Your task to perform on an android device: toggle pop-ups in chrome Image 0: 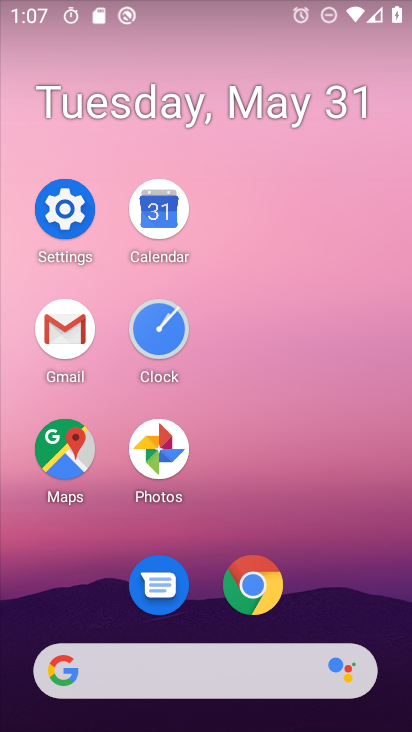
Step 0: click (271, 601)
Your task to perform on an android device: toggle pop-ups in chrome Image 1: 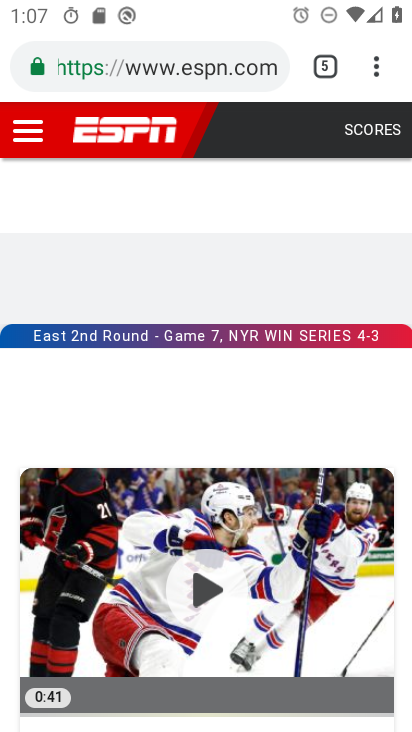
Step 1: click (365, 49)
Your task to perform on an android device: toggle pop-ups in chrome Image 2: 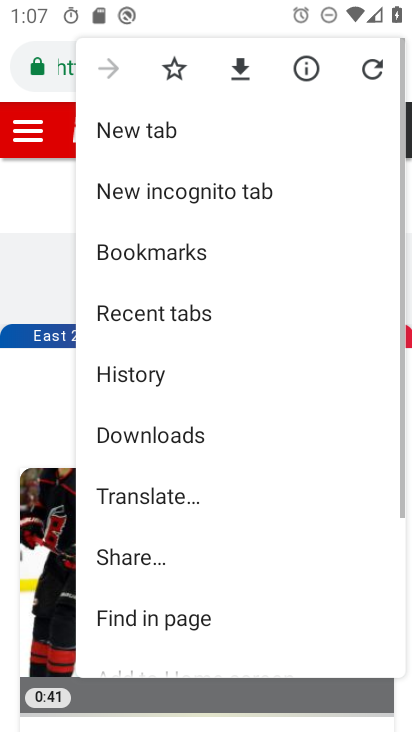
Step 2: drag from (264, 554) to (316, 210)
Your task to perform on an android device: toggle pop-ups in chrome Image 3: 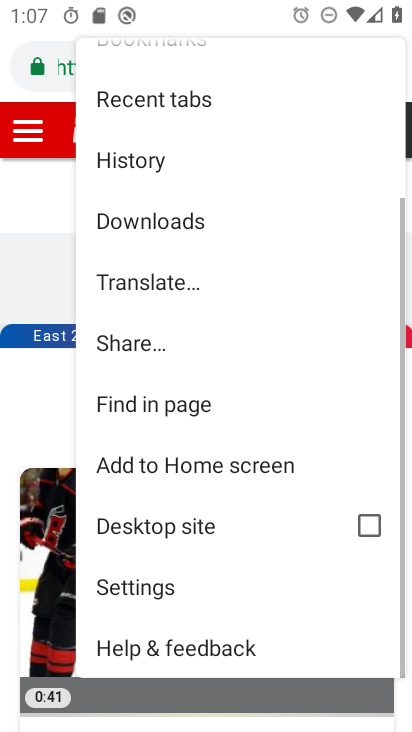
Step 3: click (176, 592)
Your task to perform on an android device: toggle pop-ups in chrome Image 4: 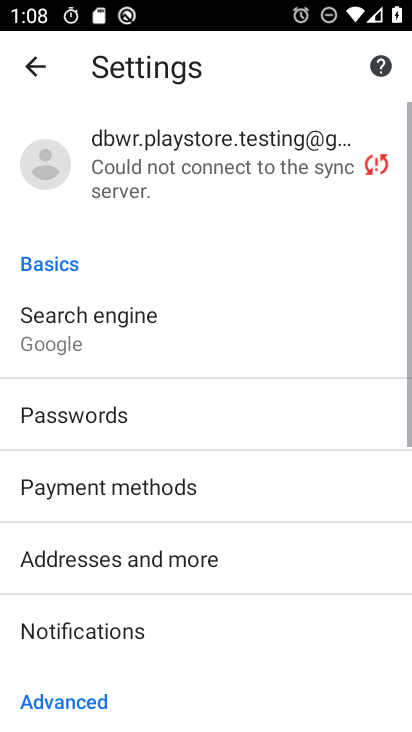
Step 4: drag from (177, 592) to (224, 217)
Your task to perform on an android device: toggle pop-ups in chrome Image 5: 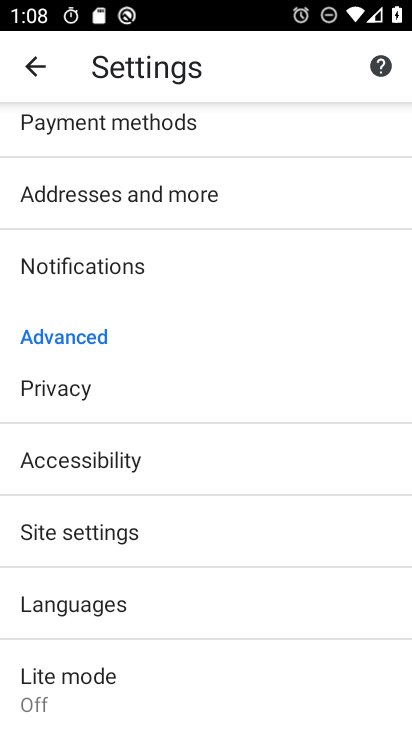
Step 5: click (120, 527)
Your task to perform on an android device: toggle pop-ups in chrome Image 6: 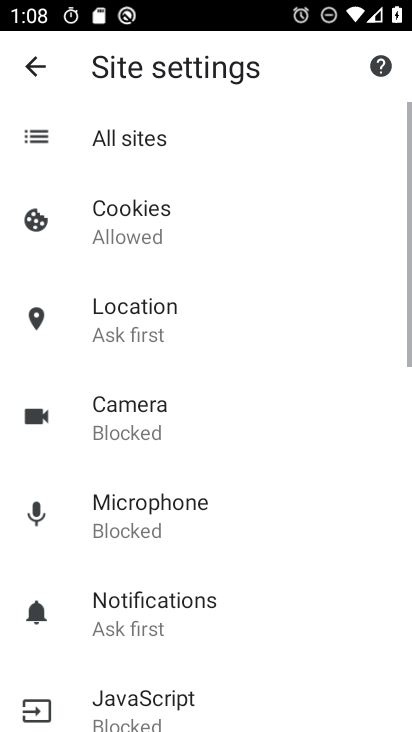
Step 6: drag from (158, 593) to (168, 230)
Your task to perform on an android device: toggle pop-ups in chrome Image 7: 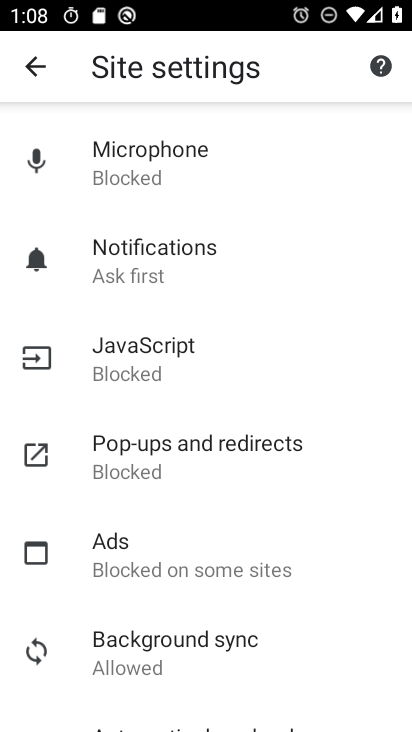
Step 7: click (133, 466)
Your task to perform on an android device: toggle pop-ups in chrome Image 8: 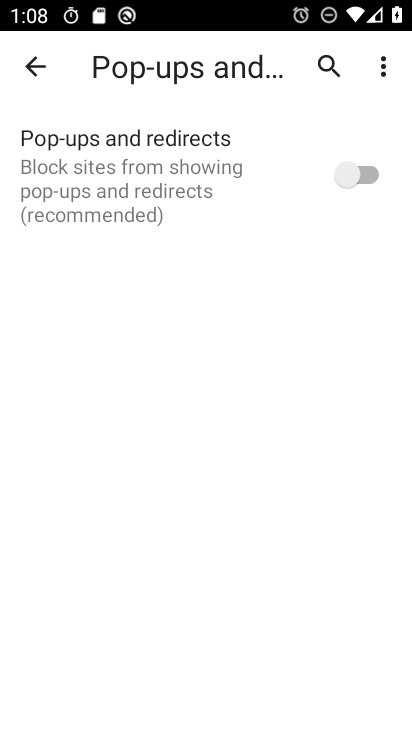
Step 8: click (360, 164)
Your task to perform on an android device: toggle pop-ups in chrome Image 9: 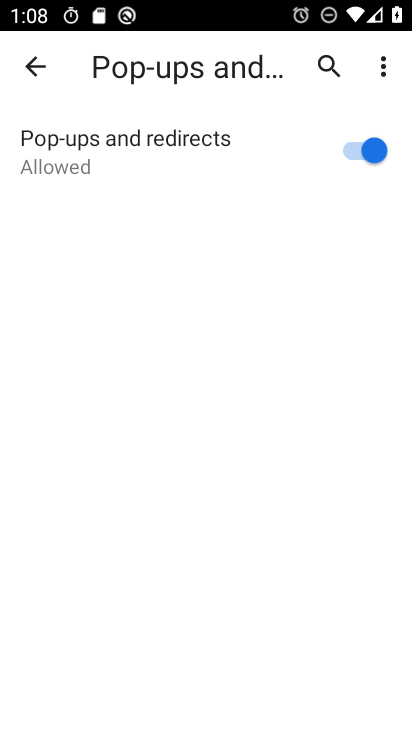
Step 9: task complete